Your task to perform on an android device: turn off notifications in google photos Image 0: 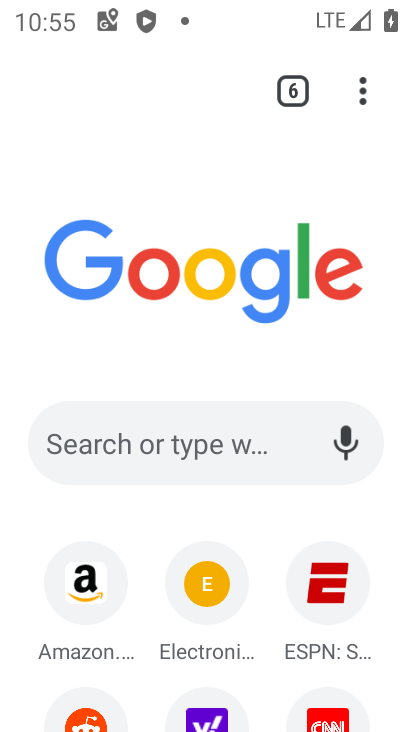
Step 0: press home button
Your task to perform on an android device: turn off notifications in google photos Image 1: 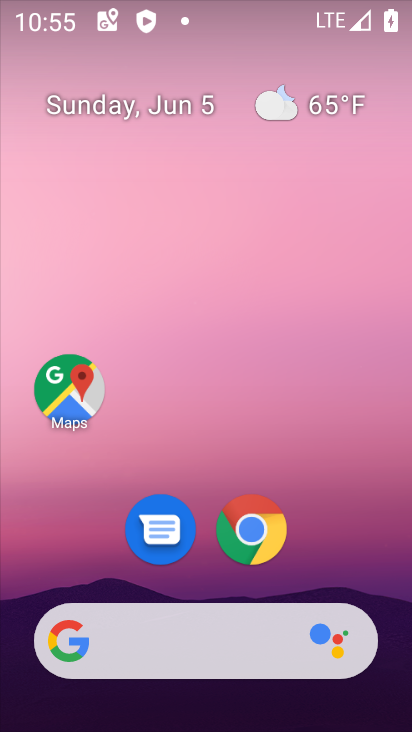
Step 1: drag from (272, 703) to (294, 11)
Your task to perform on an android device: turn off notifications in google photos Image 2: 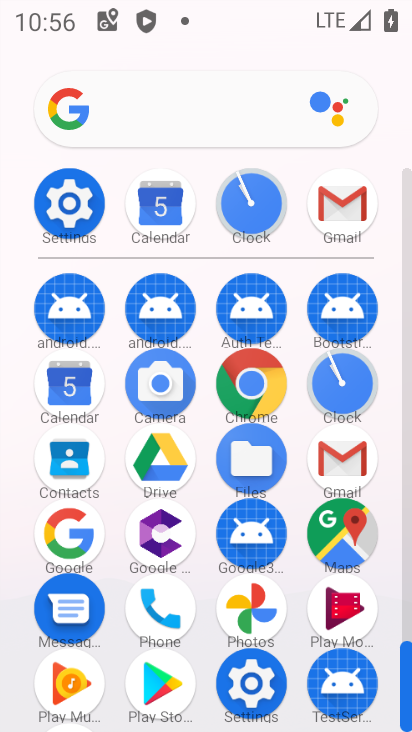
Step 2: click (249, 605)
Your task to perform on an android device: turn off notifications in google photos Image 3: 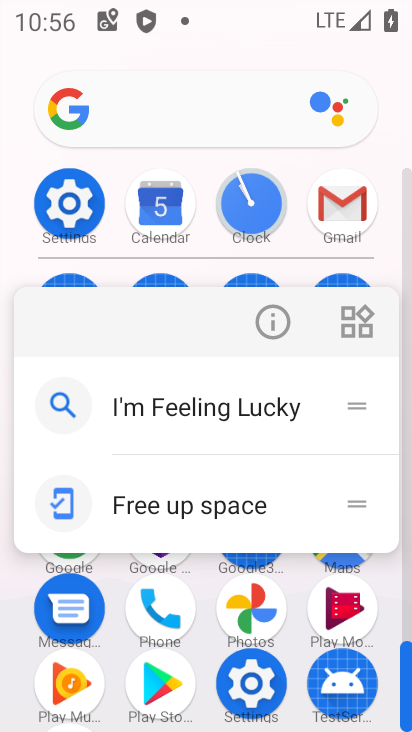
Step 3: click (282, 325)
Your task to perform on an android device: turn off notifications in google photos Image 4: 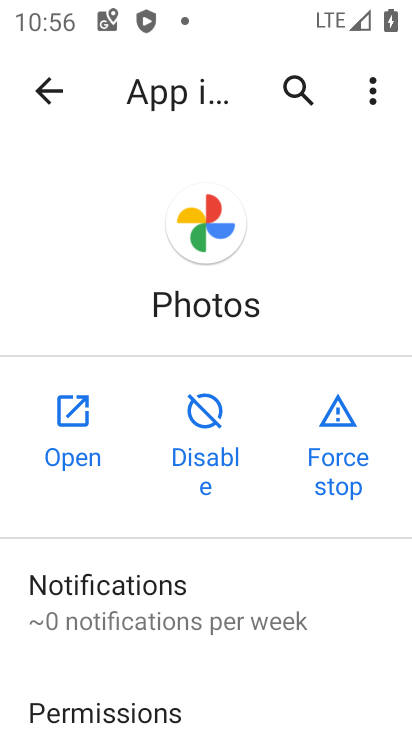
Step 4: click (258, 629)
Your task to perform on an android device: turn off notifications in google photos Image 5: 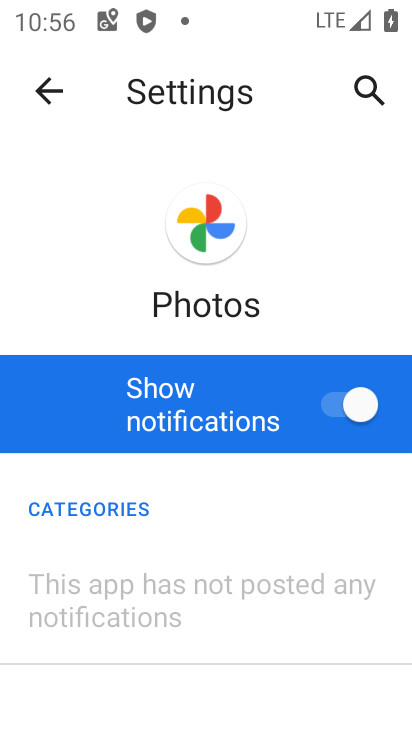
Step 5: click (336, 405)
Your task to perform on an android device: turn off notifications in google photos Image 6: 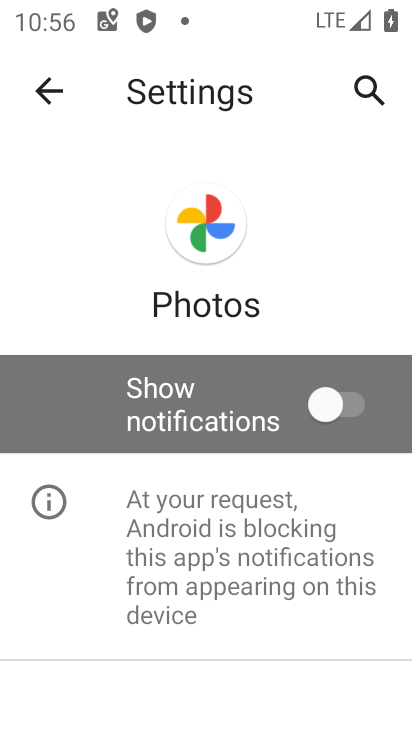
Step 6: task complete